Your task to perform on an android device: empty trash in google photos Image 0: 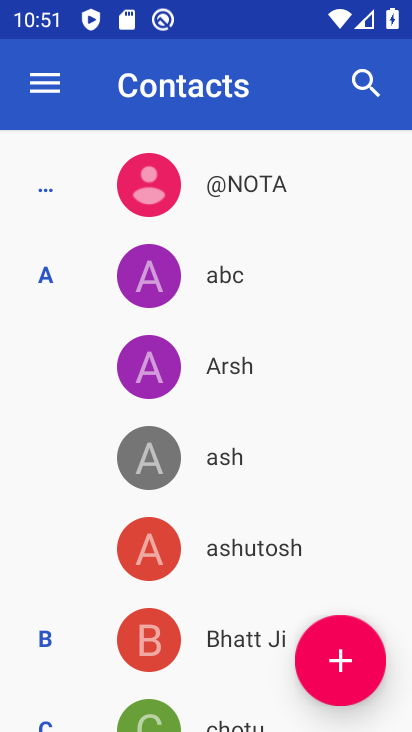
Step 0: press home button
Your task to perform on an android device: empty trash in google photos Image 1: 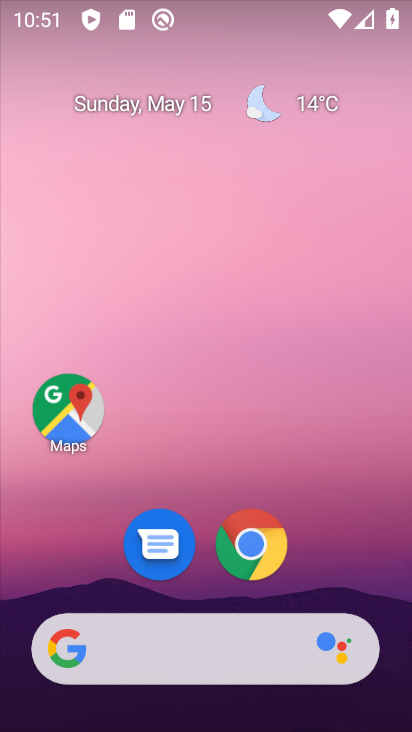
Step 1: drag from (73, 609) to (281, 110)
Your task to perform on an android device: empty trash in google photos Image 2: 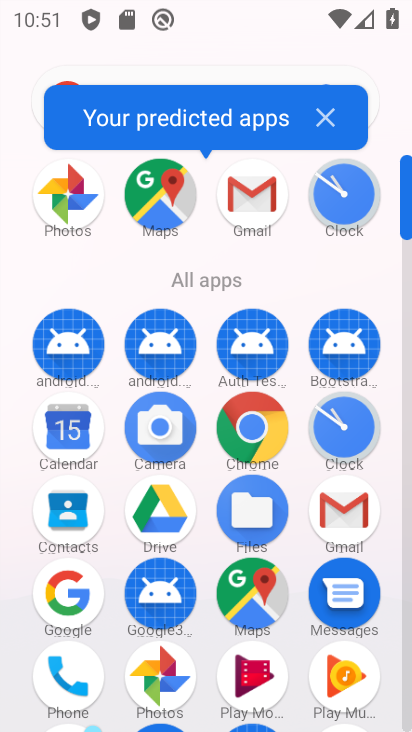
Step 2: drag from (153, 615) to (263, 422)
Your task to perform on an android device: empty trash in google photos Image 3: 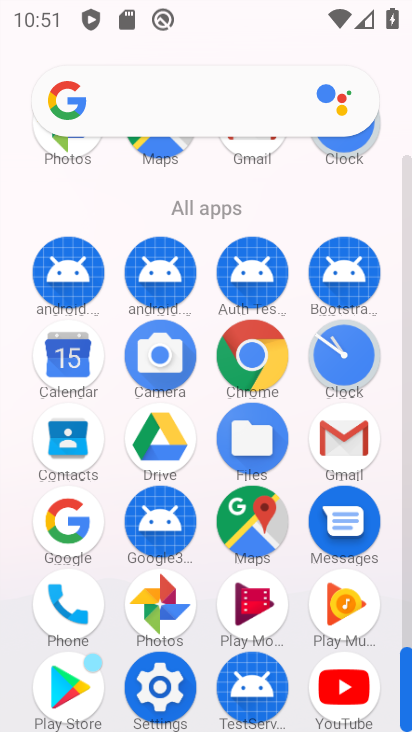
Step 3: click (159, 617)
Your task to perform on an android device: empty trash in google photos Image 4: 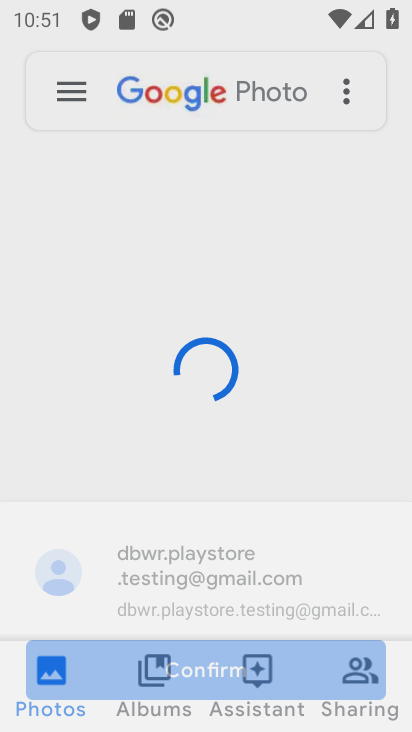
Step 4: click (86, 90)
Your task to perform on an android device: empty trash in google photos Image 5: 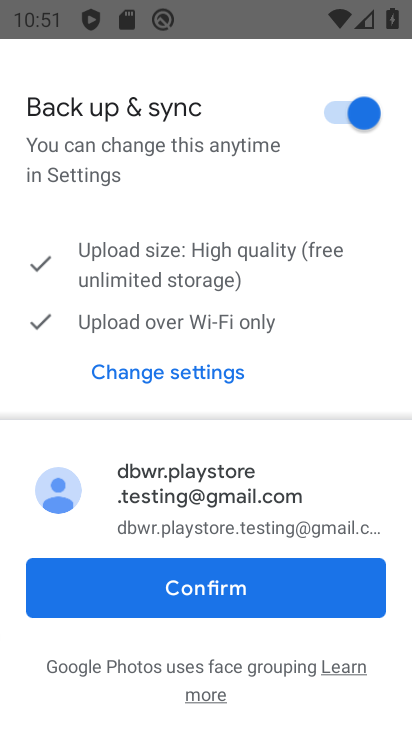
Step 5: click (189, 597)
Your task to perform on an android device: empty trash in google photos Image 6: 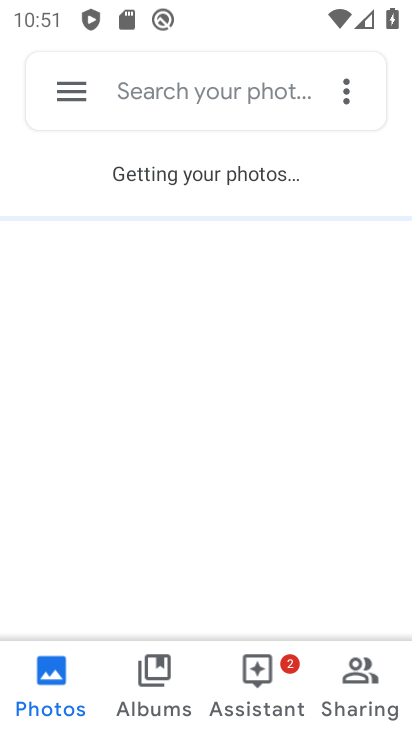
Step 6: click (67, 98)
Your task to perform on an android device: empty trash in google photos Image 7: 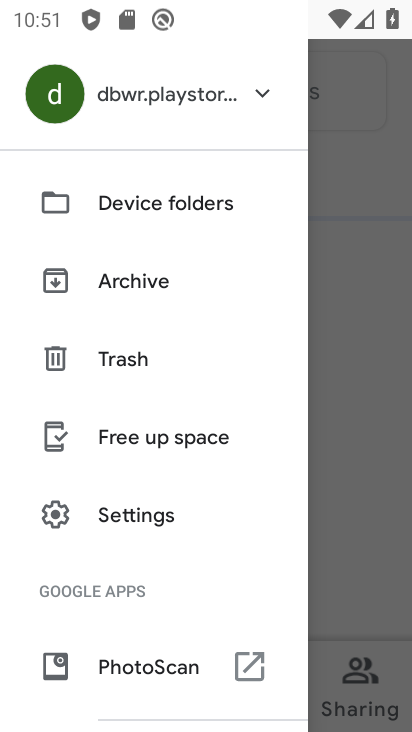
Step 7: click (128, 373)
Your task to perform on an android device: empty trash in google photos Image 8: 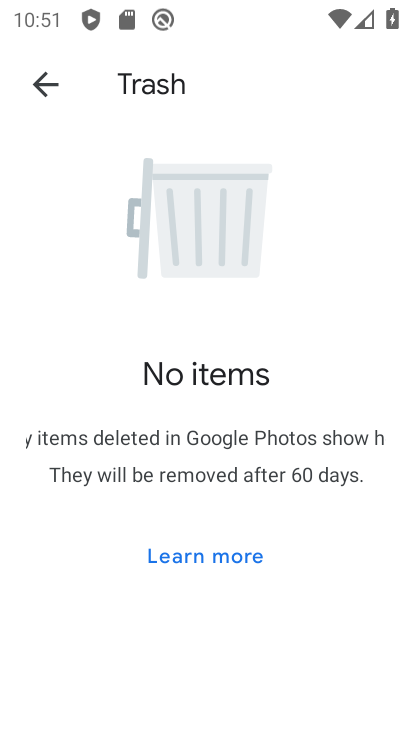
Step 8: task complete